Your task to perform on an android device: delete browsing data in the chrome app Image 0: 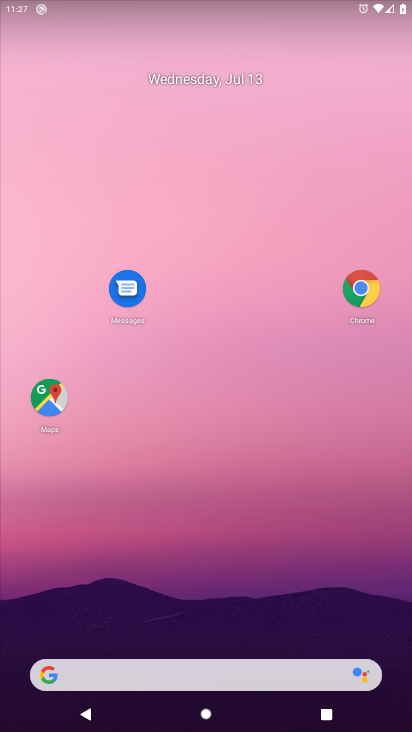
Step 0: click (365, 294)
Your task to perform on an android device: delete browsing data in the chrome app Image 1: 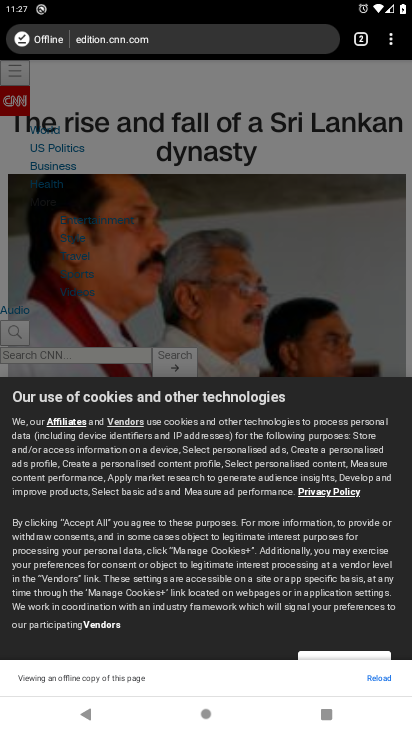
Step 1: click (389, 35)
Your task to perform on an android device: delete browsing data in the chrome app Image 2: 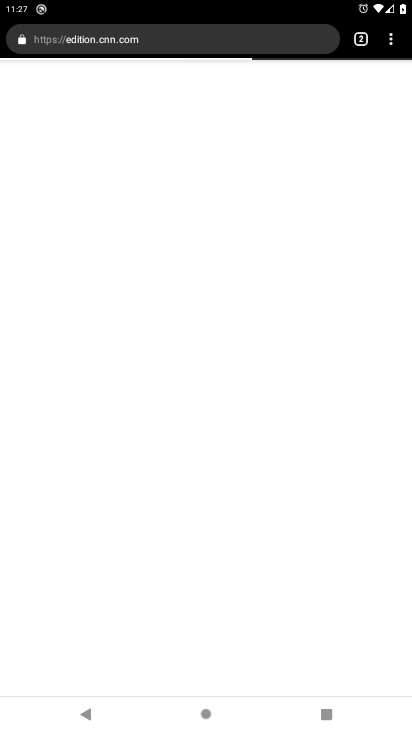
Step 2: click (392, 36)
Your task to perform on an android device: delete browsing data in the chrome app Image 3: 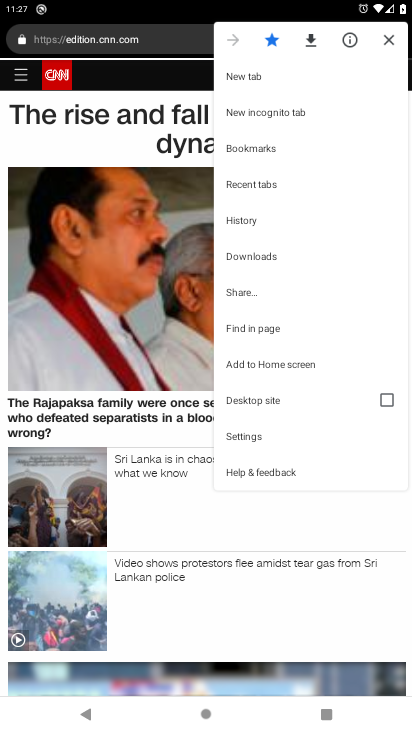
Step 3: click (266, 219)
Your task to perform on an android device: delete browsing data in the chrome app Image 4: 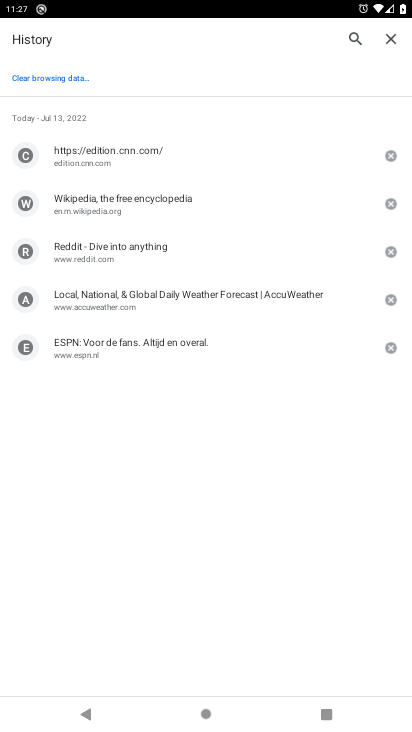
Step 4: click (79, 79)
Your task to perform on an android device: delete browsing data in the chrome app Image 5: 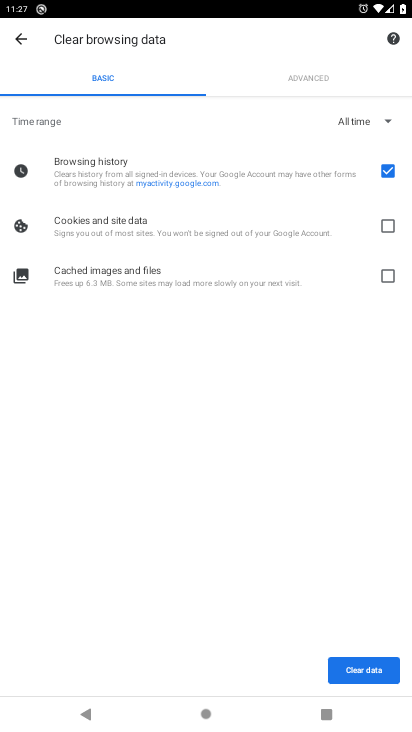
Step 5: click (344, 667)
Your task to perform on an android device: delete browsing data in the chrome app Image 6: 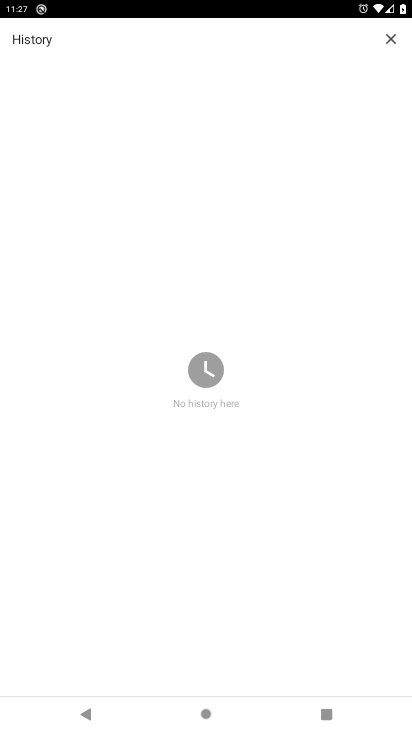
Step 6: task complete